Your task to perform on an android device: change the clock display to show seconds Image 0: 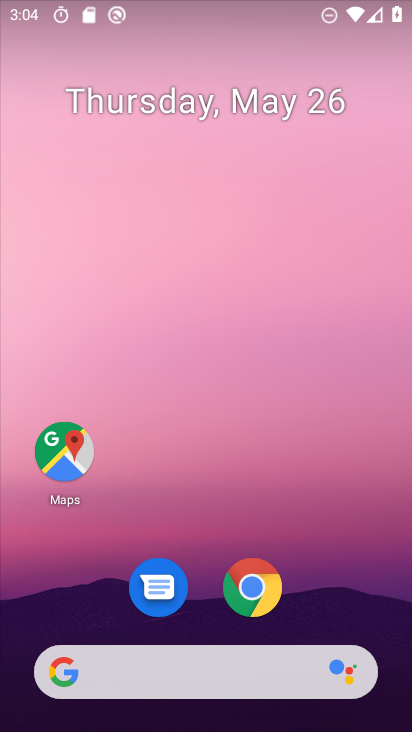
Step 0: drag from (372, 517) to (343, 289)
Your task to perform on an android device: change the clock display to show seconds Image 1: 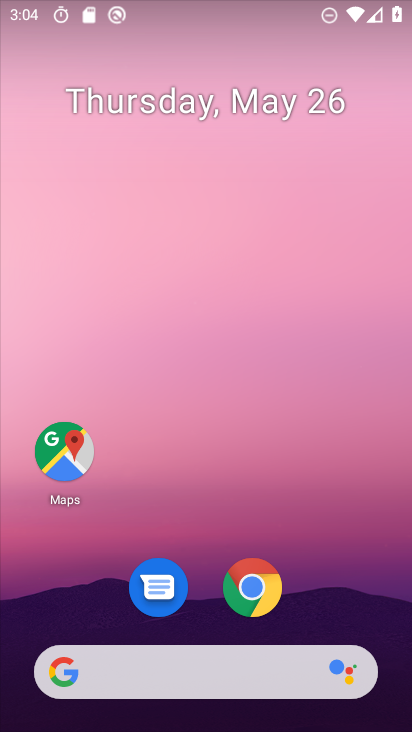
Step 1: drag from (335, 519) to (318, 149)
Your task to perform on an android device: change the clock display to show seconds Image 2: 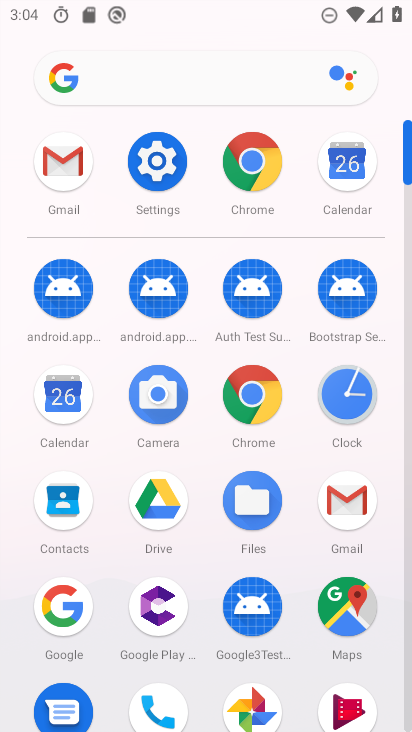
Step 2: click (339, 388)
Your task to perform on an android device: change the clock display to show seconds Image 3: 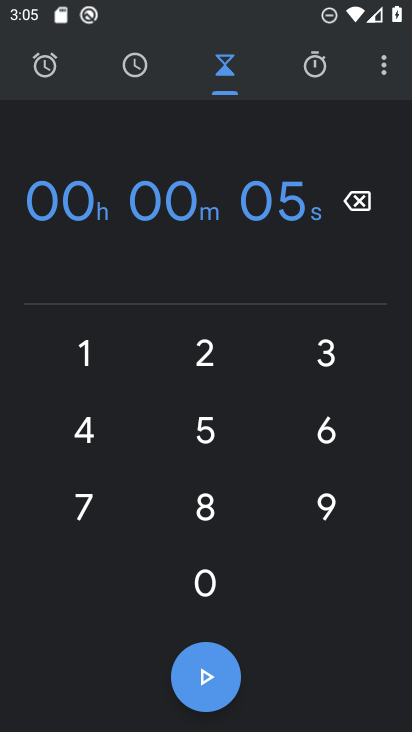
Step 3: drag from (380, 74) to (239, 147)
Your task to perform on an android device: change the clock display to show seconds Image 4: 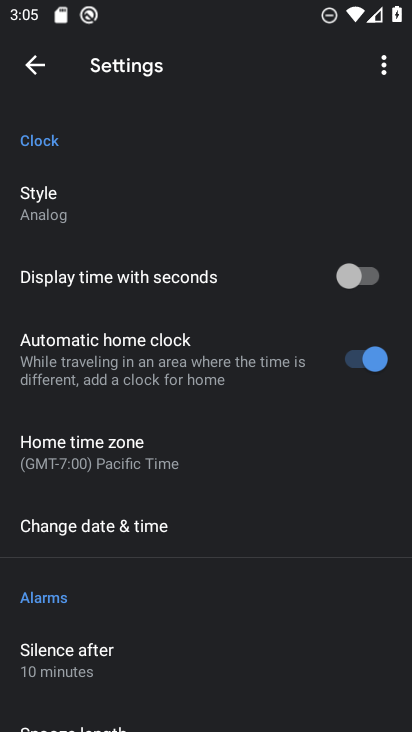
Step 4: click (358, 287)
Your task to perform on an android device: change the clock display to show seconds Image 5: 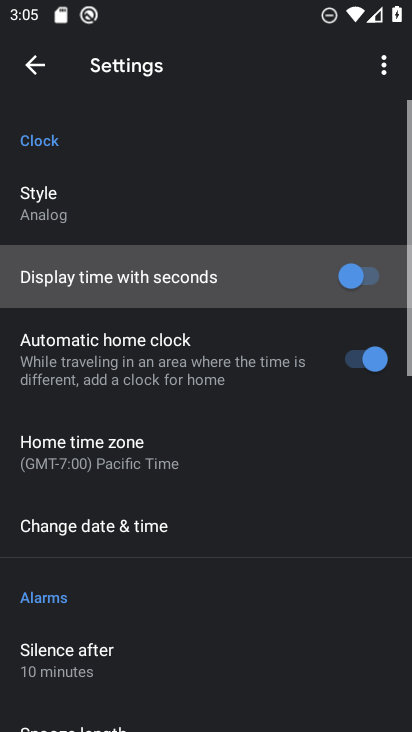
Step 5: click (362, 283)
Your task to perform on an android device: change the clock display to show seconds Image 6: 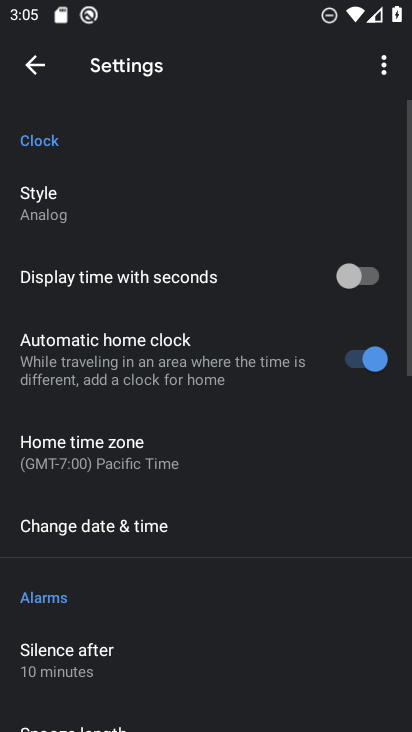
Step 6: task complete